Your task to perform on an android device: turn notification dots off Image 0: 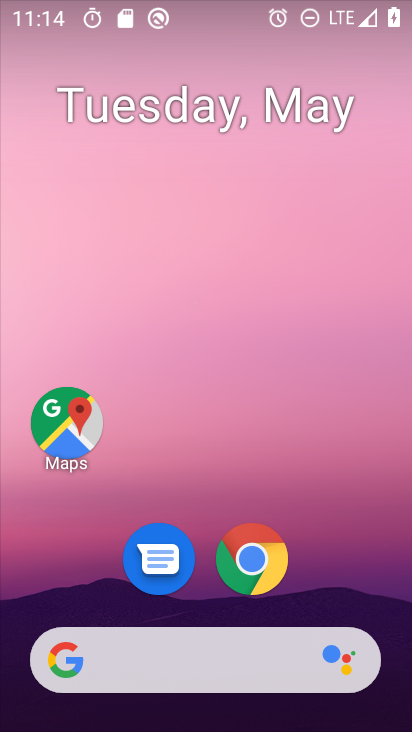
Step 0: drag from (386, 635) to (170, 59)
Your task to perform on an android device: turn notification dots off Image 1: 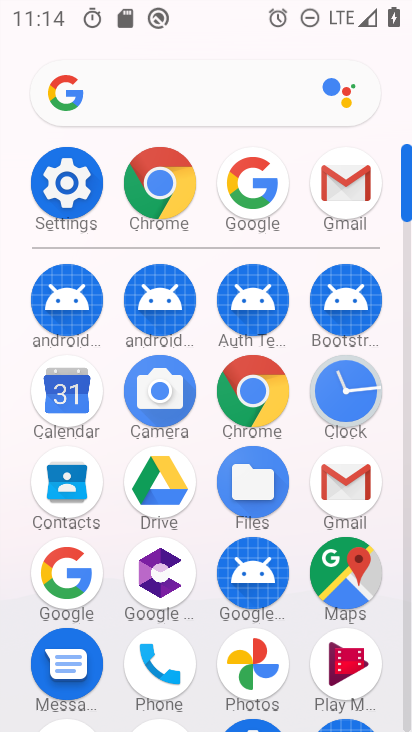
Step 1: click (80, 190)
Your task to perform on an android device: turn notification dots off Image 2: 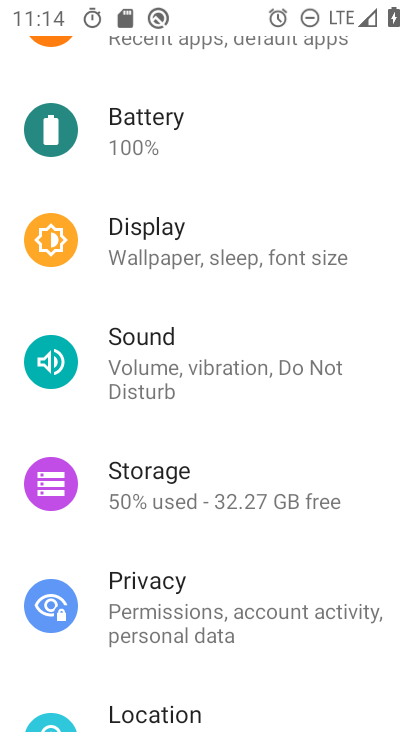
Step 2: drag from (208, 182) to (235, 592)
Your task to perform on an android device: turn notification dots off Image 3: 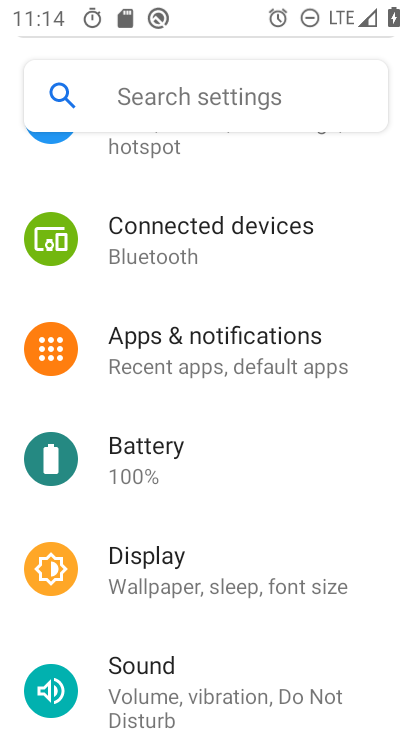
Step 3: click (279, 382)
Your task to perform on an android device: turn notification dots off Image 4: 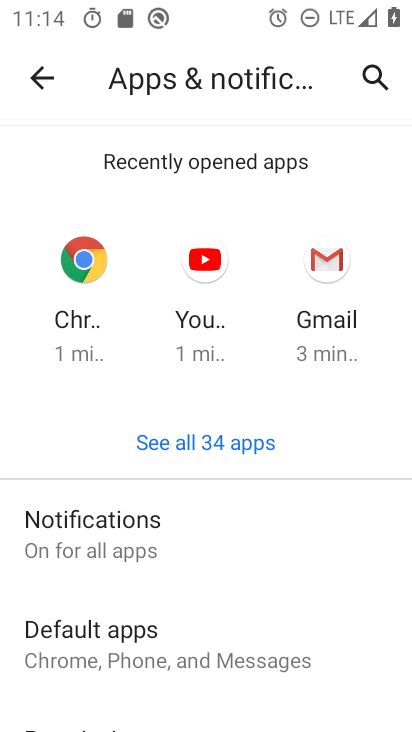
Step 4: click (153, 526)
Your task to perform on an android device: turn notification dots off Image 5: 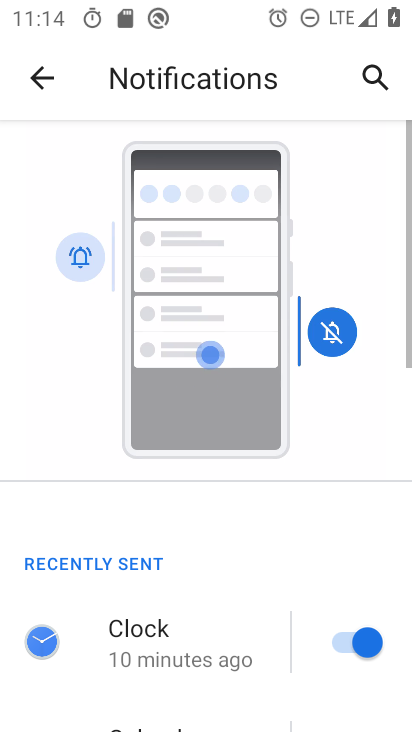
Step 5: drag from (231, 643) to (205, 6)
Your task to perform on an android device: turn notification dots off Image 6: 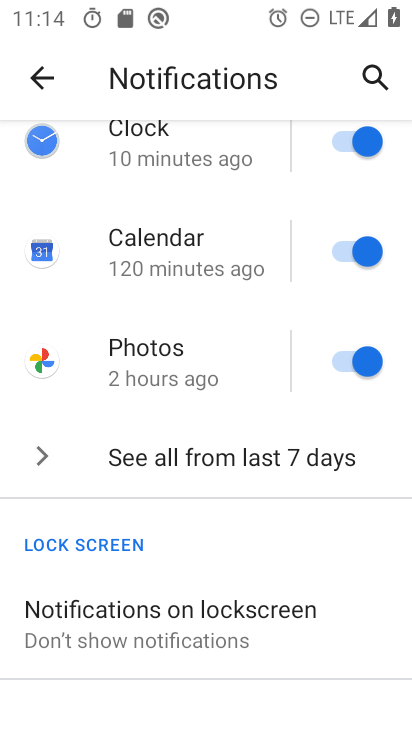
Step 6: drag from (208, 635) to (186, 76)
Your task to perform on an android device: turn notification dots off Image 7: 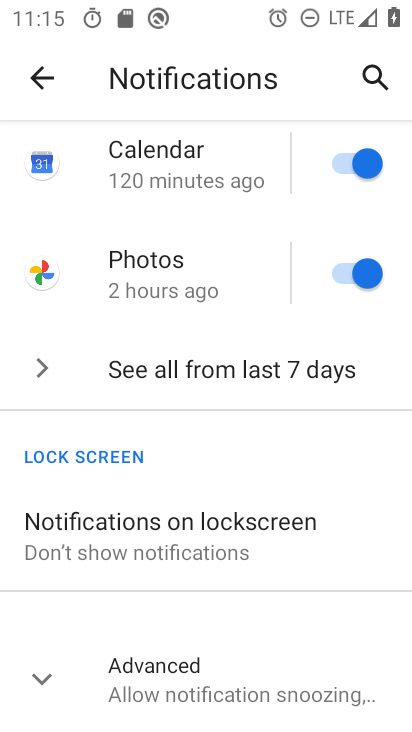
Step 7: click (189, 663)
Your task to perform on an android device: turn notification dots off Image 8: 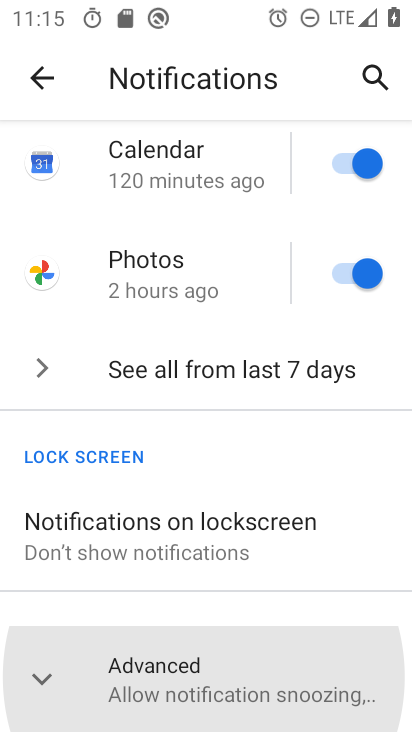
Step 8: drag from (189, 668) to (176, 47)
Your task to perform on an android device: turn notification dots off Image 9: 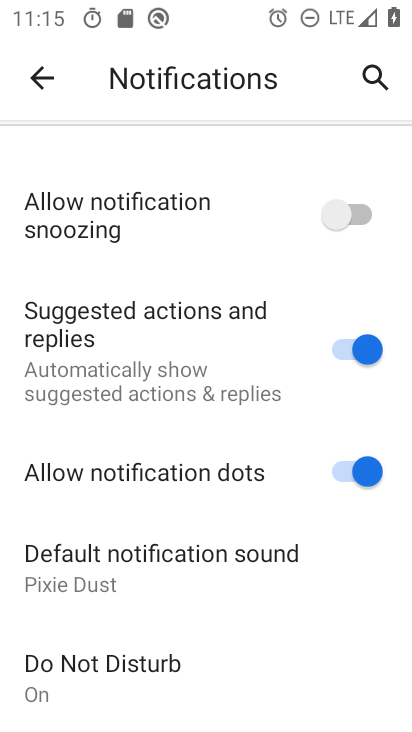
Step 9: click (247, 487)
Your task to perform on an android device: turn notification dots off Image 10: 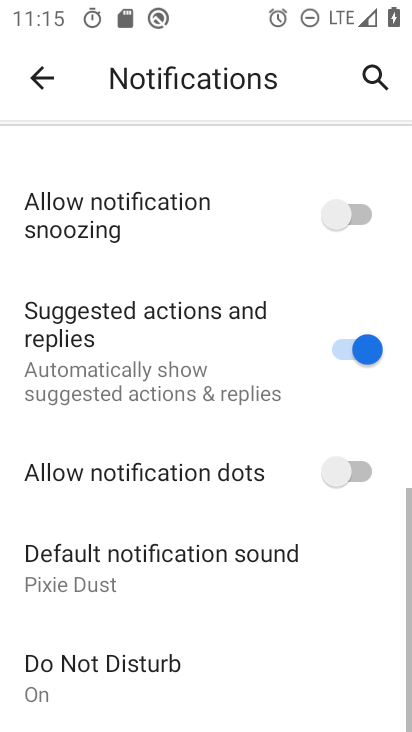
Step 10: task complete